Your task to perform on an android device: open sync settings in chrome Image 0: 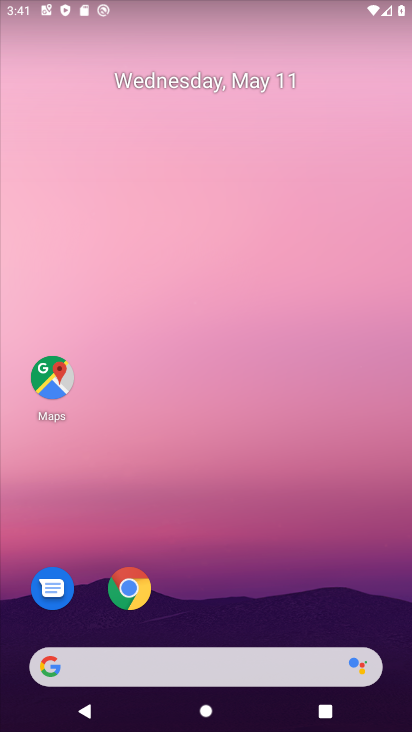
Step 0: drag from (232, 609) to (295, 86)
Your task to perform on an android device: open sync settings in chrome Image 1: 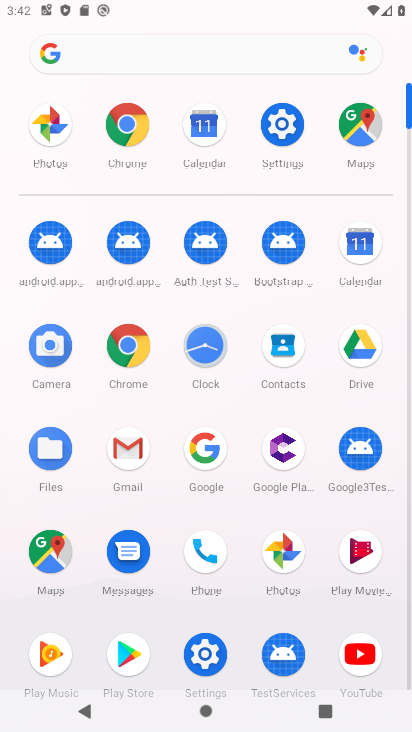
Step 1: click (132, 342)
Your task to perform on an android device: open sync settings in chrome Image 2: 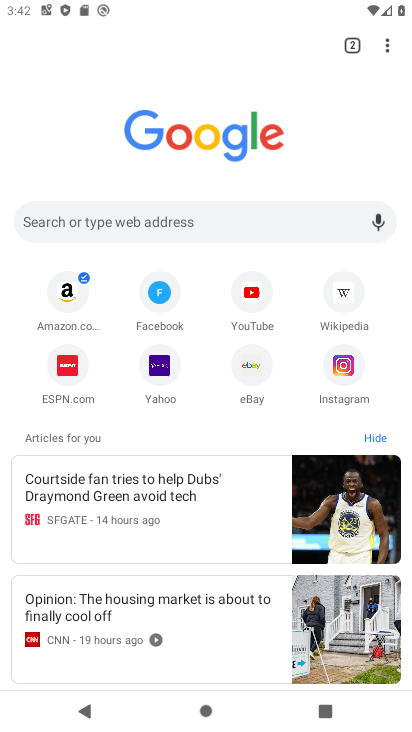
Step 2: click (394, 53)
Your task to perform on an android device: open sync settings in chrome Image 3: 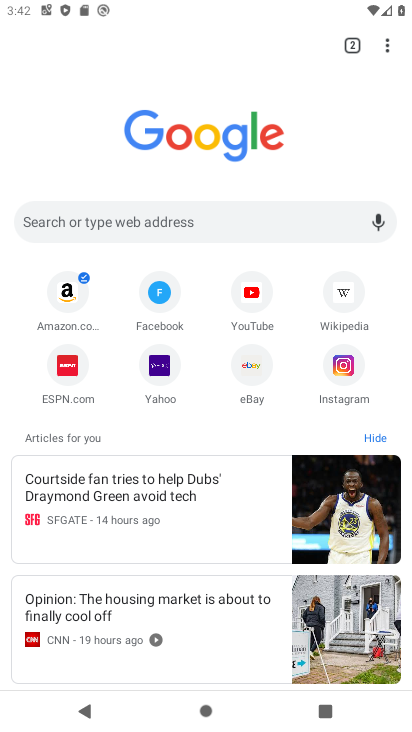
Step 3: click (392, 48)
Your task to perform on an android device: open sync settings in chrome Image 4: 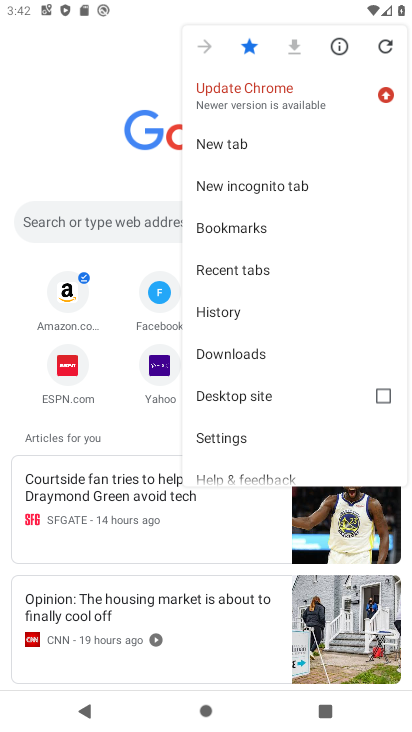
Step 4: click (216, 435)
Your task to perform on an android device: open sync settings in chrome Image 5: 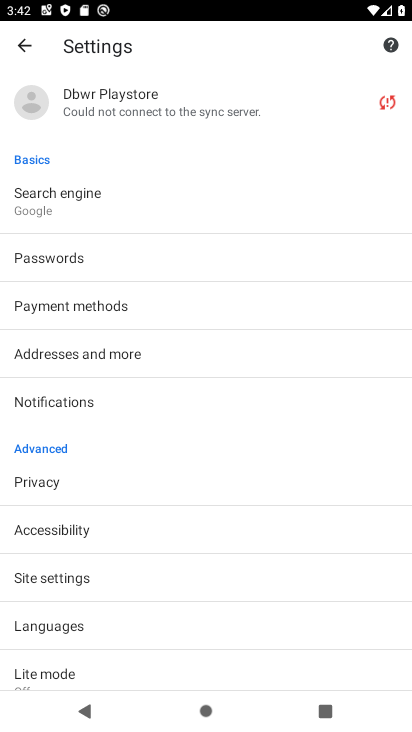
Step 5: click (206, 106)
Your task to perform on an android device: open sync settings in chrome Image 6: 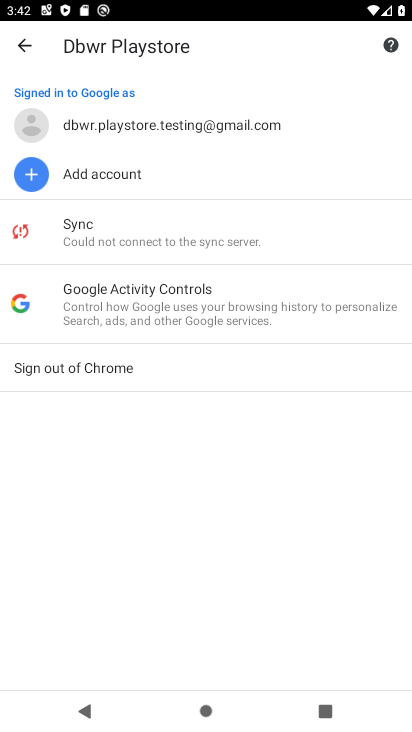
Step 6: click (167, 233)
Your task to perform on an android device: open sync settings in chrome Image 7: 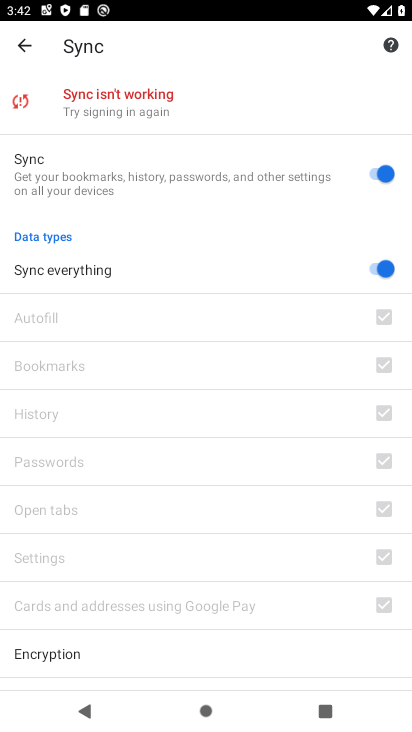
Step 7: task complete